Your task to perform on an android device: add a contact Image 0: 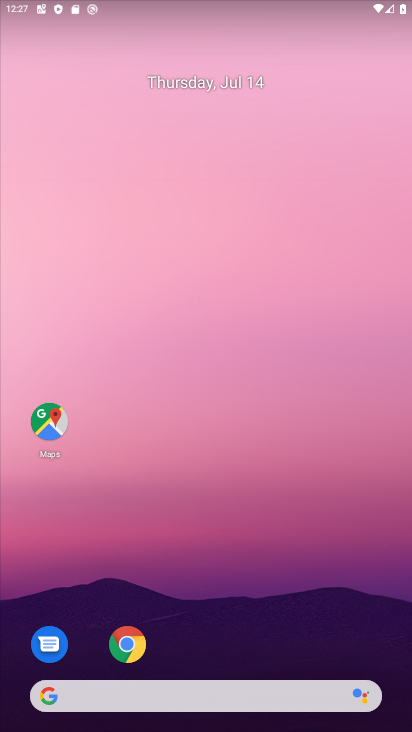
Step 0: drag from (299, 577) to (371, 164)
Your task to perform on an android device: add a contact Image 1: 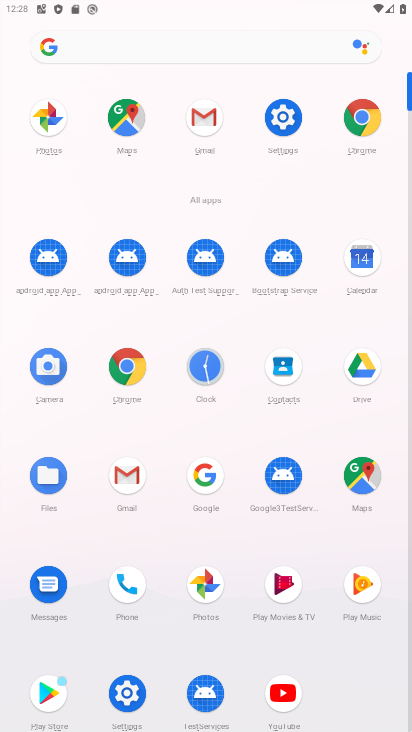
Step 1: click (218, 359)
Your task to perform on an android device: add a contact Image 2: 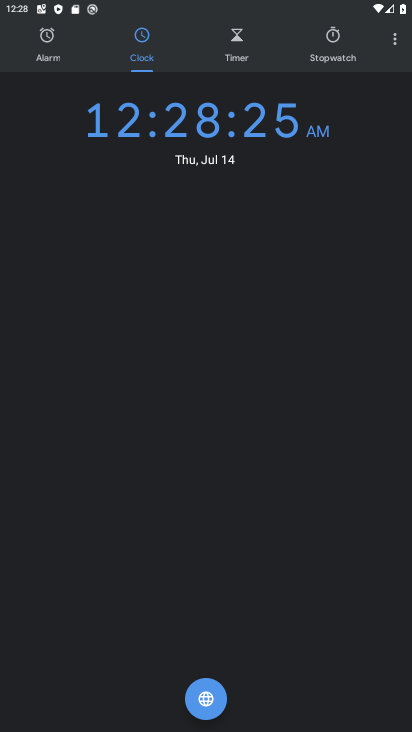
Step 2: press home button
Your task to perform on an android device: add a contact Image 3: 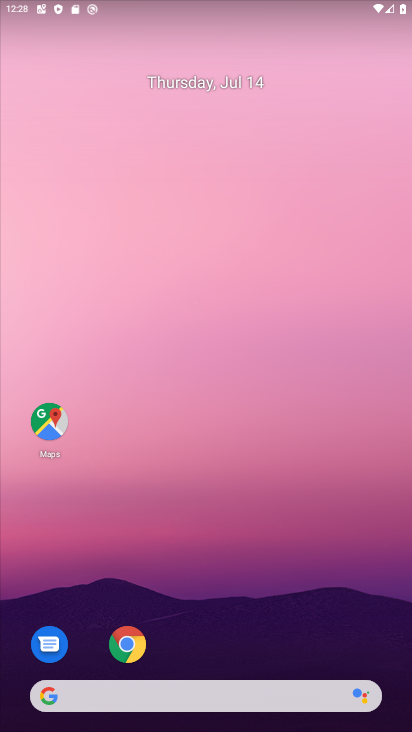
Step 3: drag from (289, 692) to (295, 397)
Your task to perform on an android device: add a contact Image 4: 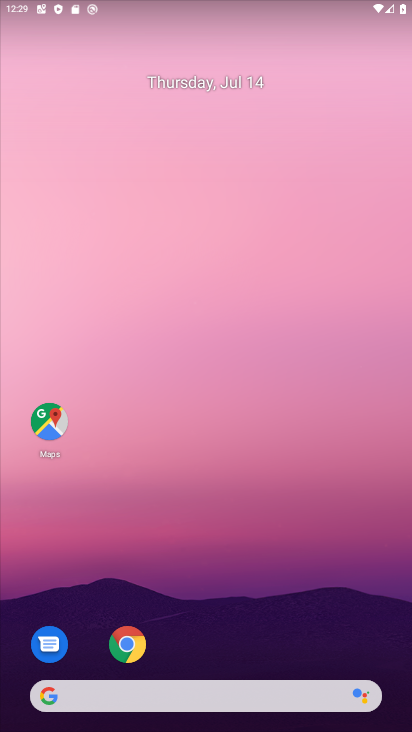
Step 4: drag from (289, 634) to (284, 0)
Your task to perform on an android device: add a contact Image 5: 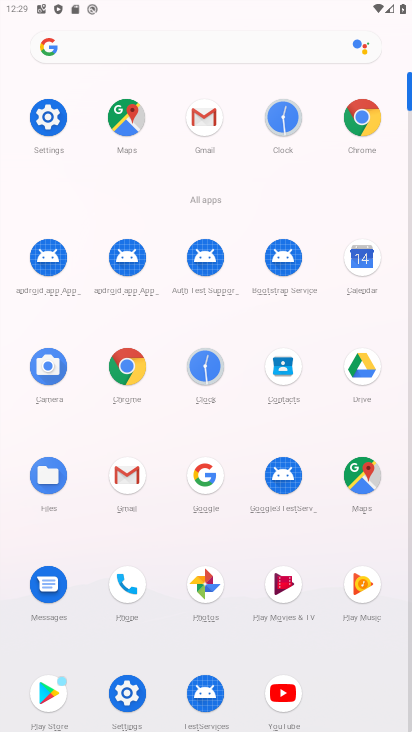
Step 5: click (280, 364)
Your task to perform on an android device: add a contact Image 6: 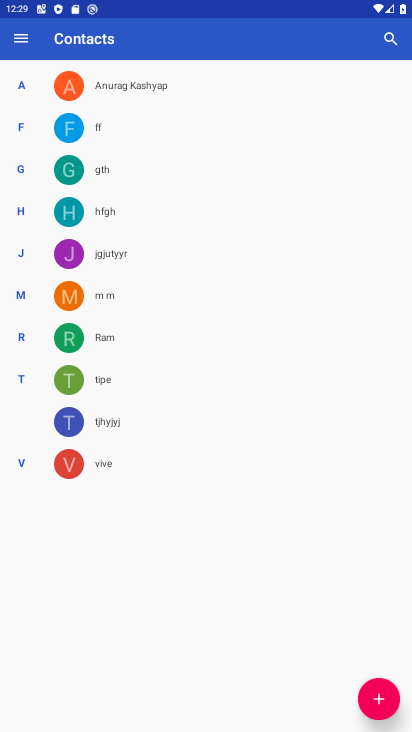
Step 6: click (398, 701)
Your task to perform on an android device: add a contact Image 7: 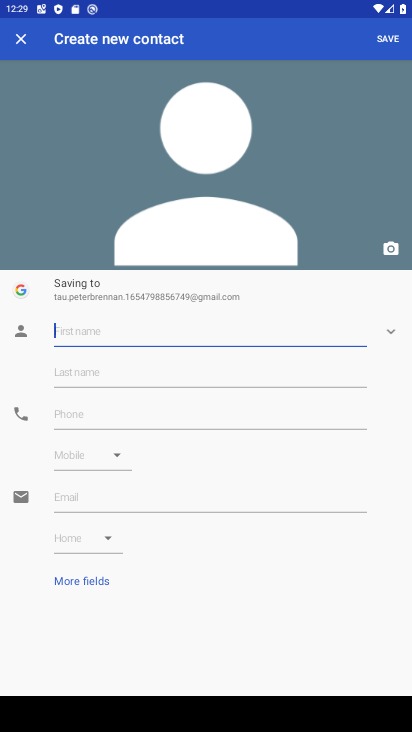
Step 7: type "sdsdfd"
Your task to perform on an android device: add a contact Image 8: 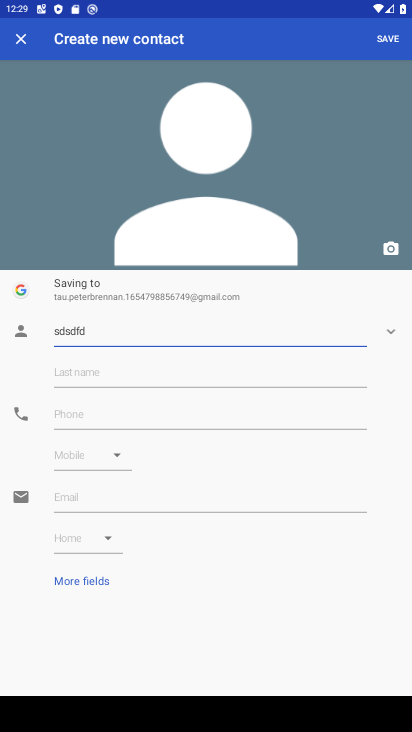
Step 8: click (133, 420)
Your task to perform on an android device: add a contact Image 9: 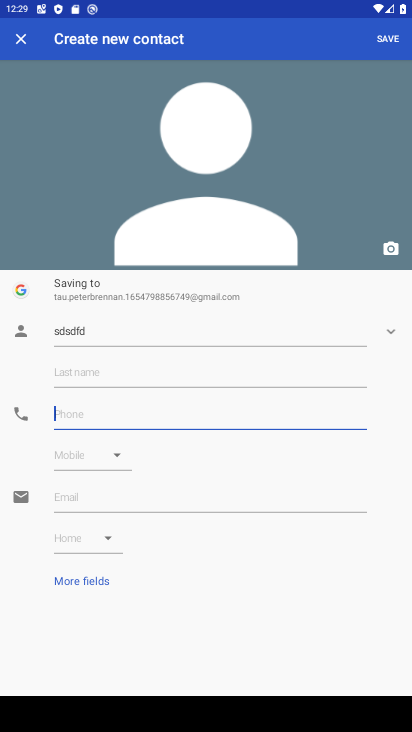
Step 9: type "3545635577"
Your task to perform on an android device: add a contact Image 10: 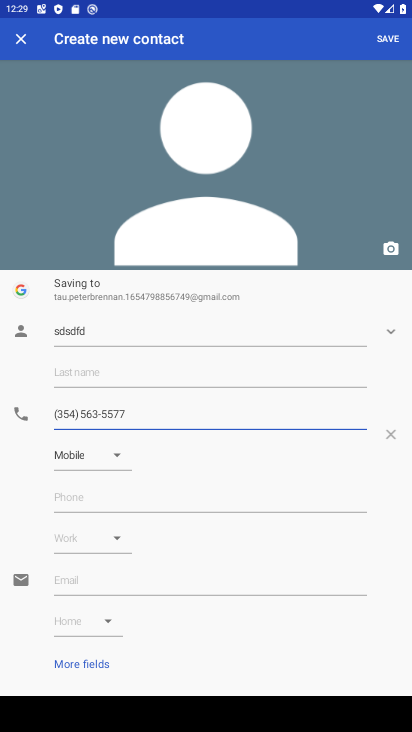
Step 10: click (386, 35)
Your task to perform on an android device: add a contact Image 11: 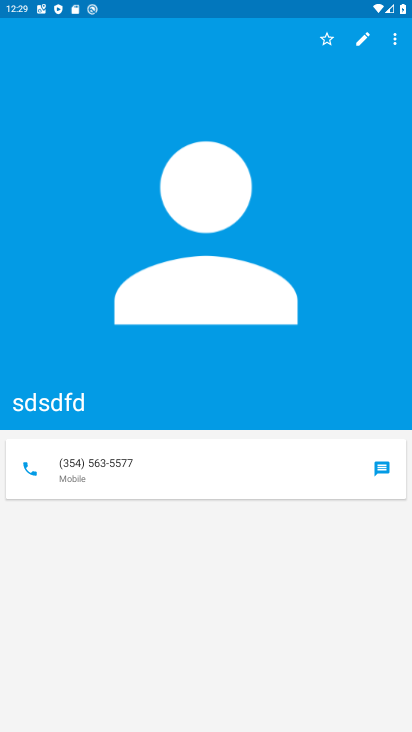
Step 11: task complete